Your task to perform on an android device: Show me productivity apps on the Play Store Image 0: 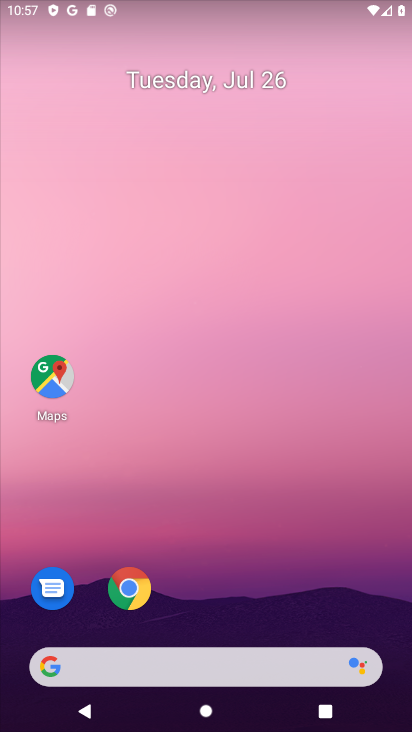
Step 0: drag from (235, 610) to (256, 54)
Your task to perform on an android device: Show me productivity apps on the Play Store Image 1: 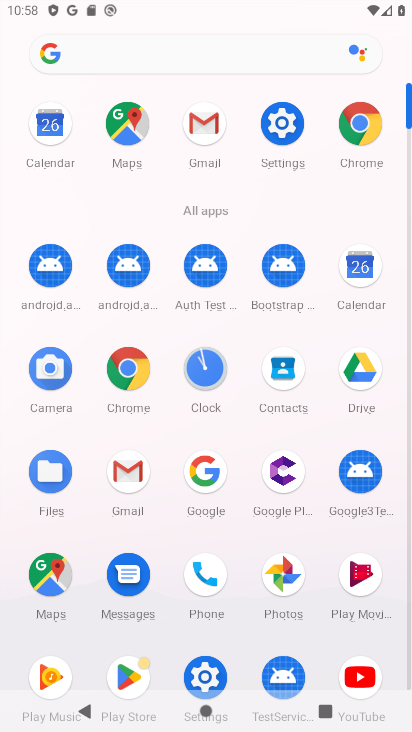
Step 1: click (127, 667)
Your task to perform on an android device: Show me productivity apps on the Play Store Image 2: 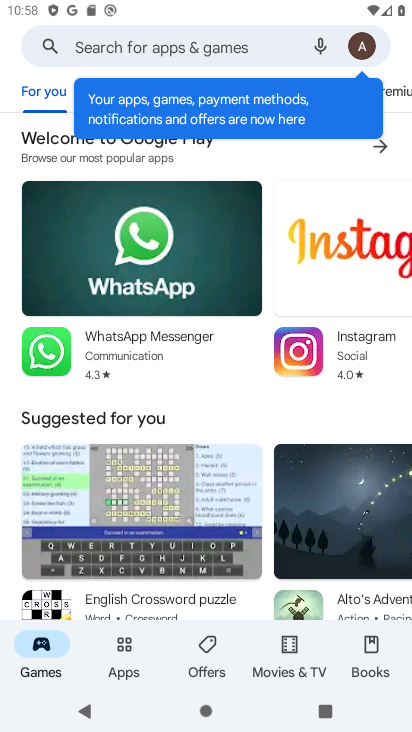
Step 2: click (119, 646)
Your task to perform on an android device: Show me productivity apps on the Play Store Image 3: 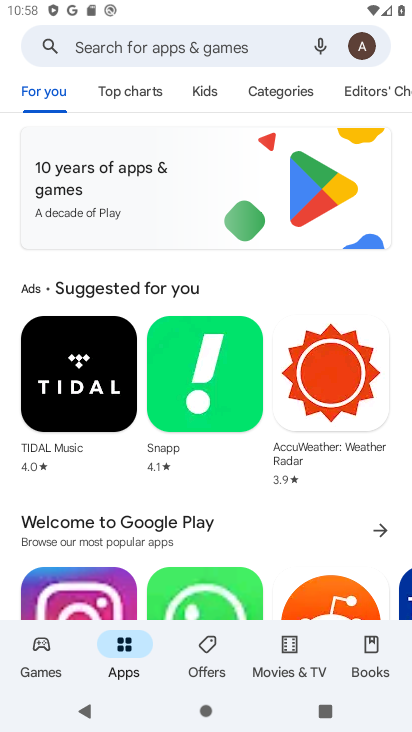
Step 3: click (290, 96)
Your task to perform on an android device: Show me productivity apps on the Play Store Image 4: 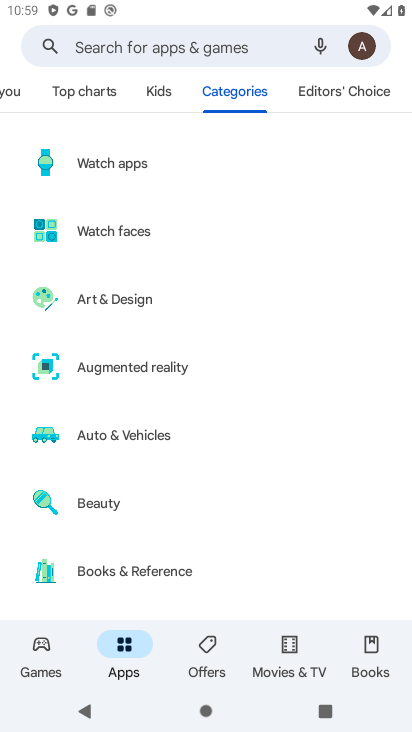
Step 4: drag from (175, 577) to (222, 38)
Your task to perform on an android device: Show me productivity apps on the Play Store Image 5: 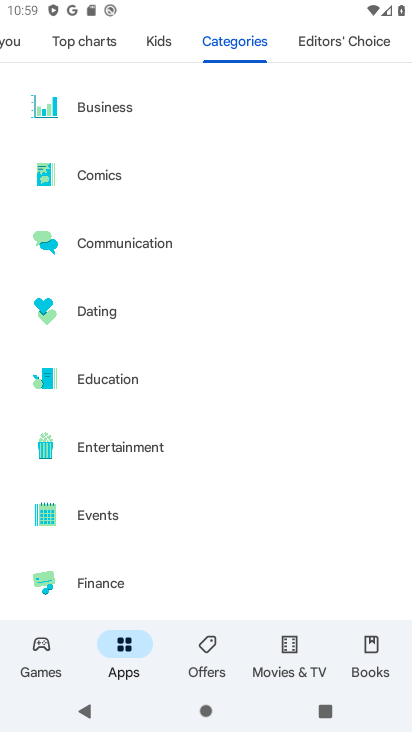
Step 5: drag from (183, 573) to (231, 7)
Your task to perform on an android device: Show me productivity apps on the Play Store Image 6: 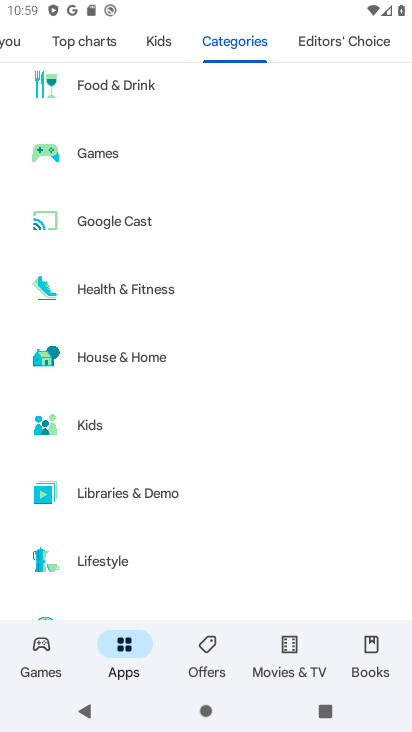
Step 6: drag from (167, 587) to (222, 117)
Your task to perform on an android device: Show me productivity apps on the Play Store Image 7: 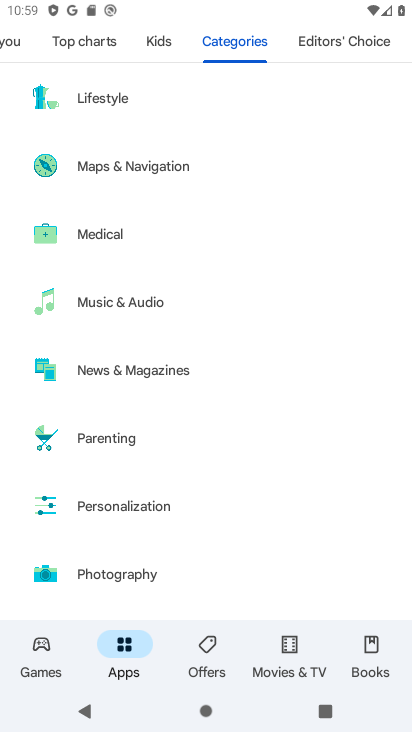
Step 7: drag from (209, 564) to (223, 194)
Your task to perform on an android device: Show me productivity apps on the Play Store Image 8: 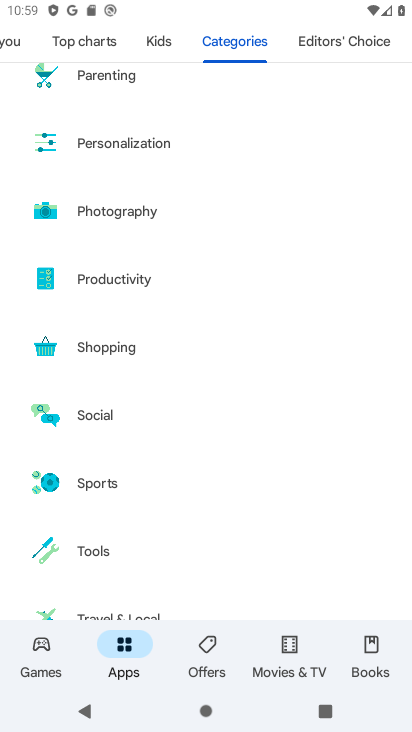
Step 8: click (162, 270)
Your task to perform on an android device: Show me productivity apps on the Play Store Image 9: 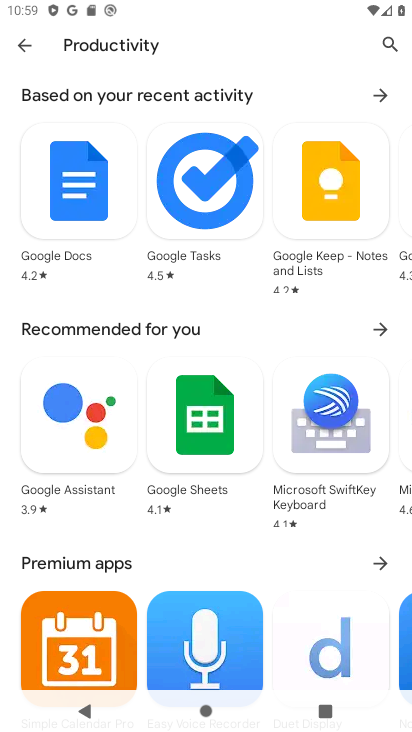
Step 9: task complete